Your task to perform on an android device: open app "HBO Max: Stream TV & Movies" Image 0: 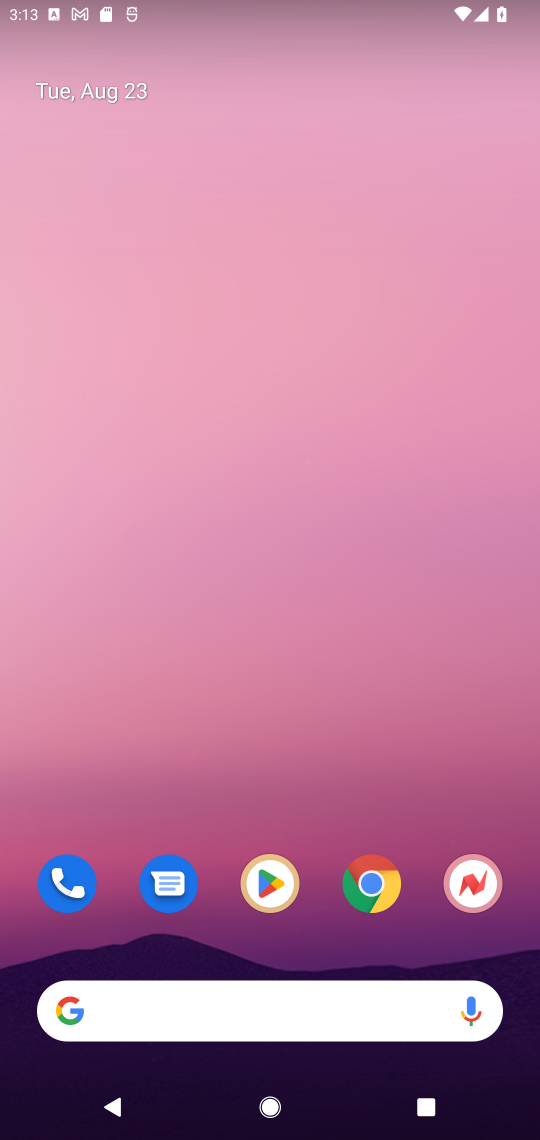
Step 0: drag from (244, 693) to (201, 169)
Your task to perform on an android device: open app "HBO Max: Stream TV & Movies" Image 1: 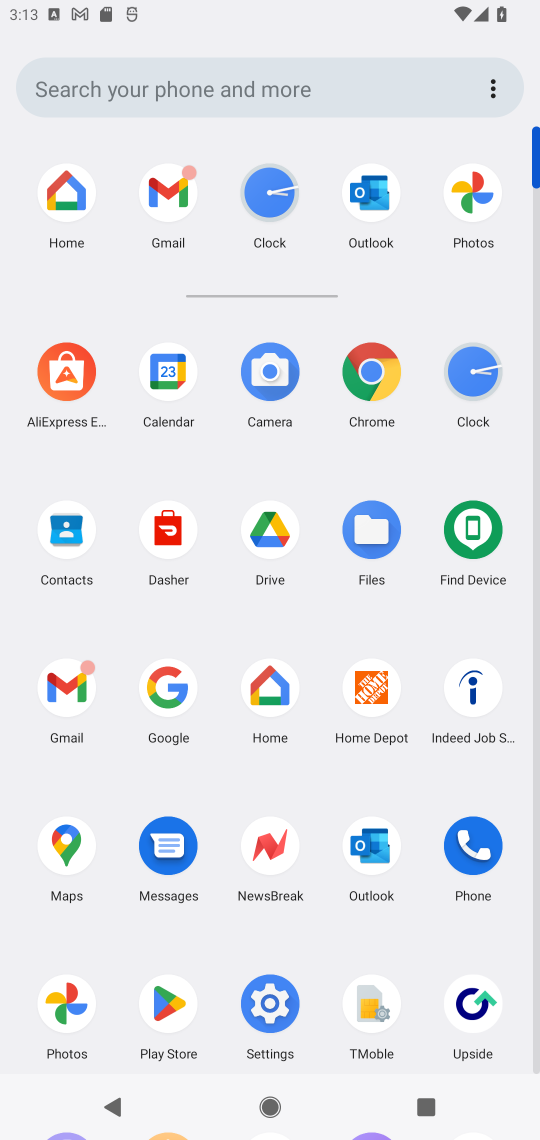
Step 1: click (141, 1013)
Your task to perform on an android device: open app "HBO Max: Stream TV & Movies" Image 2: 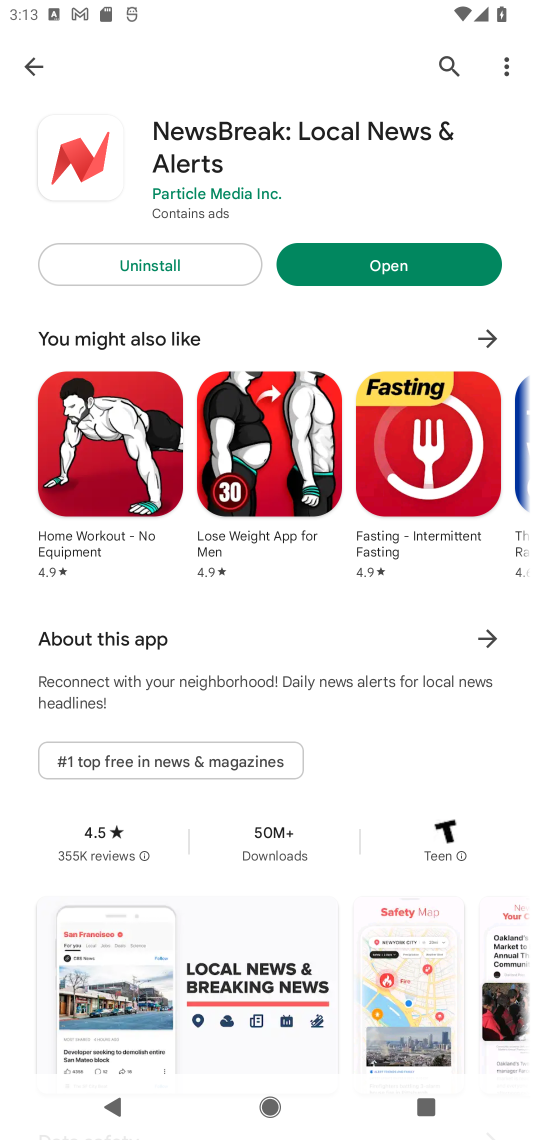
Step 2: click (443, 59)
Your task to perform on an android device: open app "HBO Max: Stream TV & Movies" Image 3: 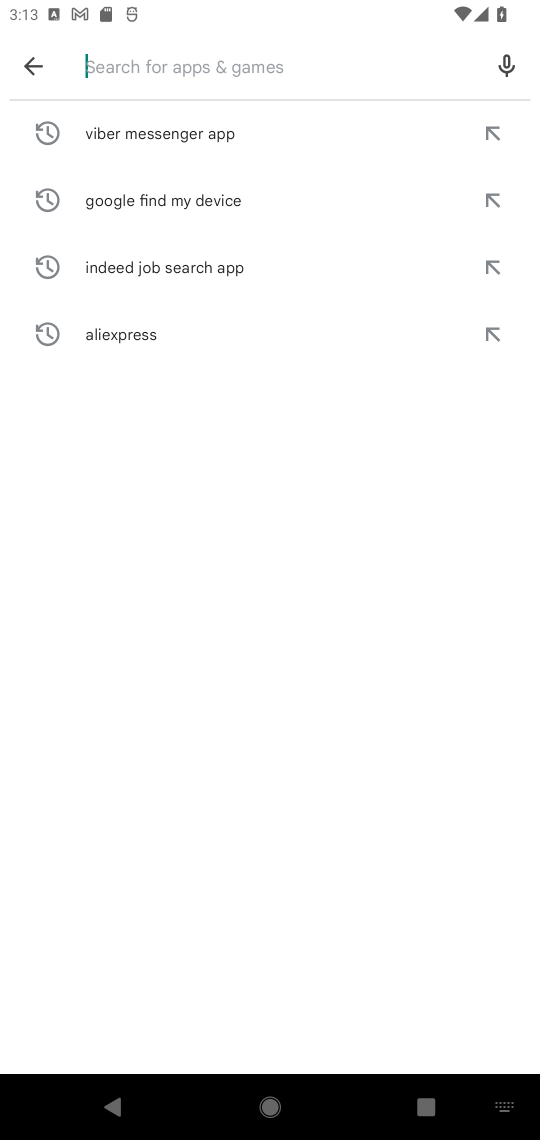
Step 3: type "HBO Max: Stream TV & Movies"
Your task to perform on an android device: open app "HBO Max: Stream TV & Movies" Image 4: 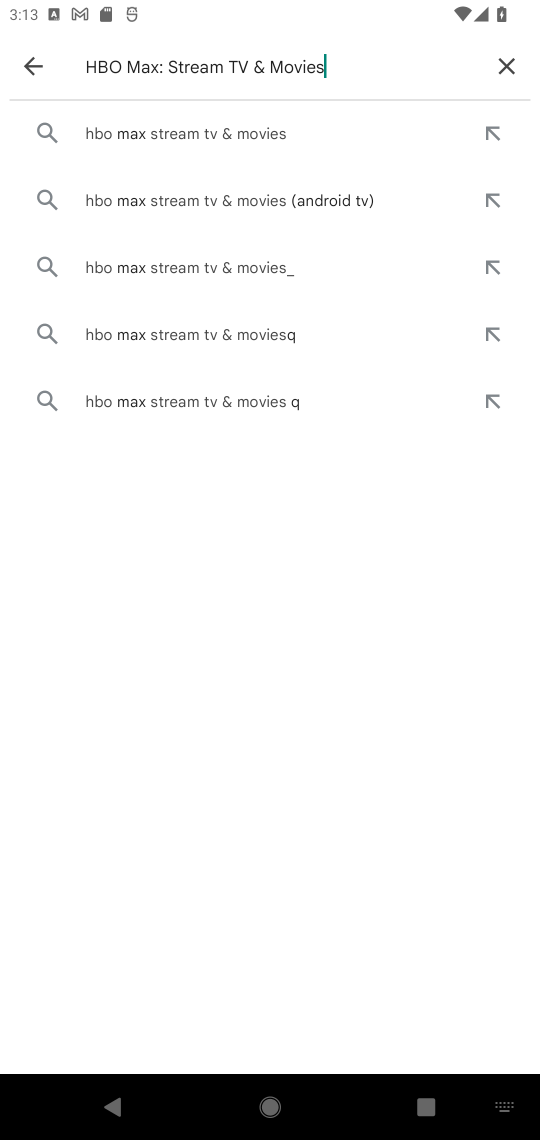
Step 4: click (106, 139)
Your task to perform on an android device: open app "HBO Max: Stream TV & Movies" Image 5: 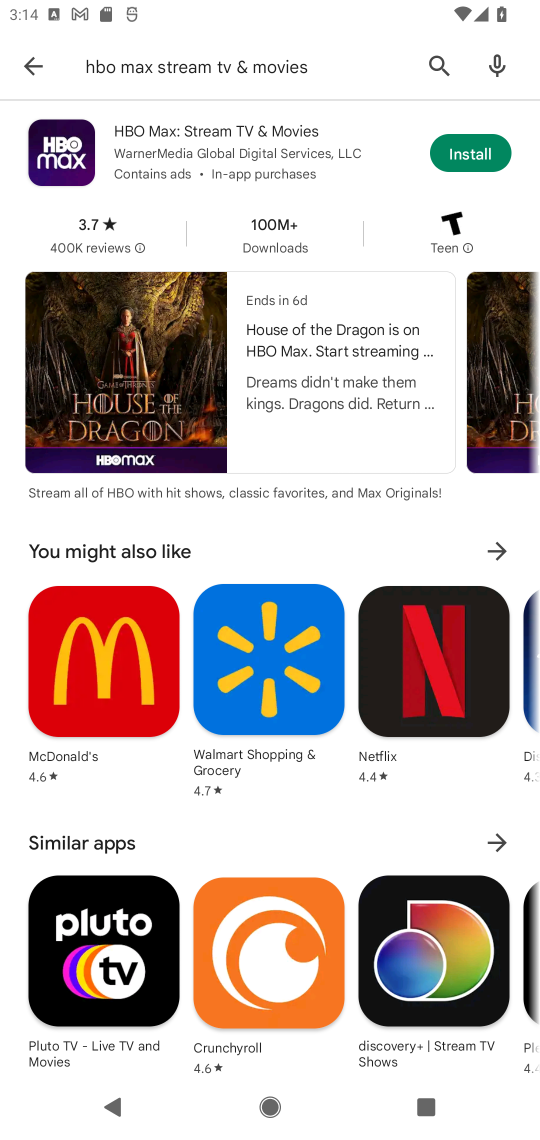
Step 5: click (460, 168)
Your task to perform on an android device: open app "HBO Max: Stream TV & Movies" Image 6: 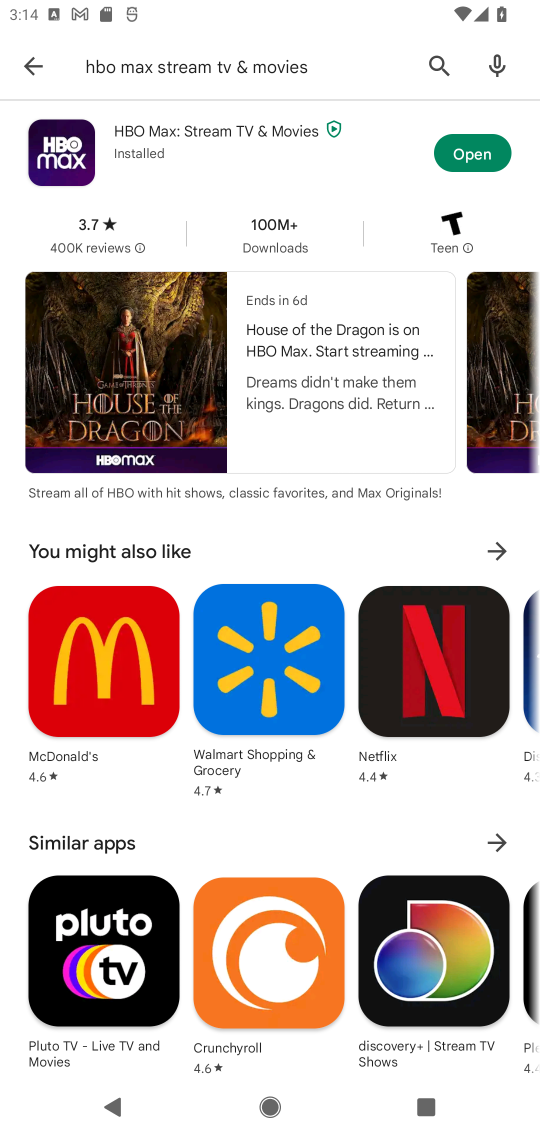
Step 6: click (448, 159)
Your task to perform on an android device: open app "HBO Max: Stream TV & Movies" Image 7: 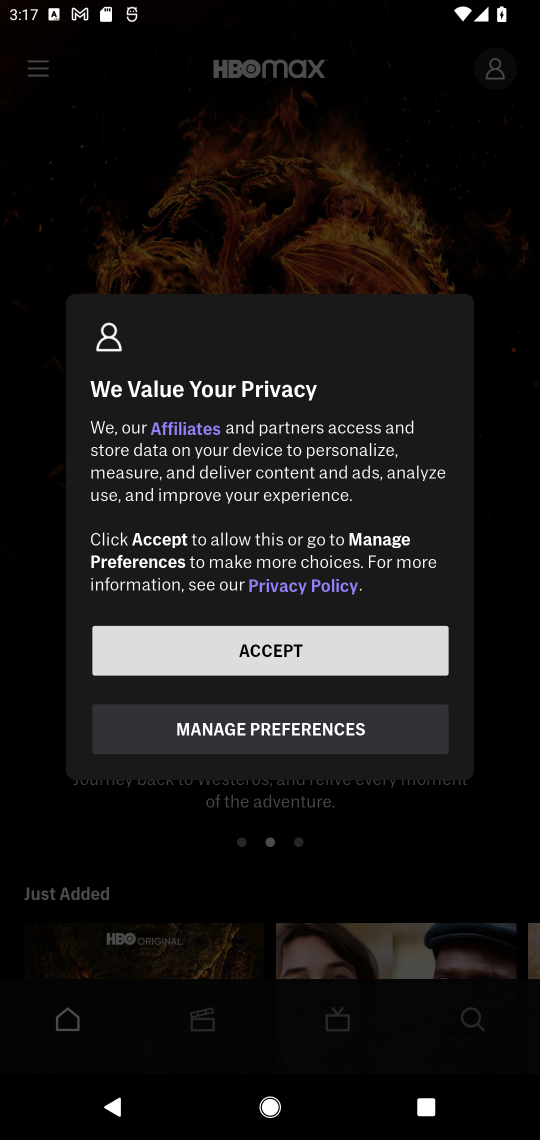
Step 7: task complete